Your task to perform on an android device: What's on my calendar tomorrow? Image 0: 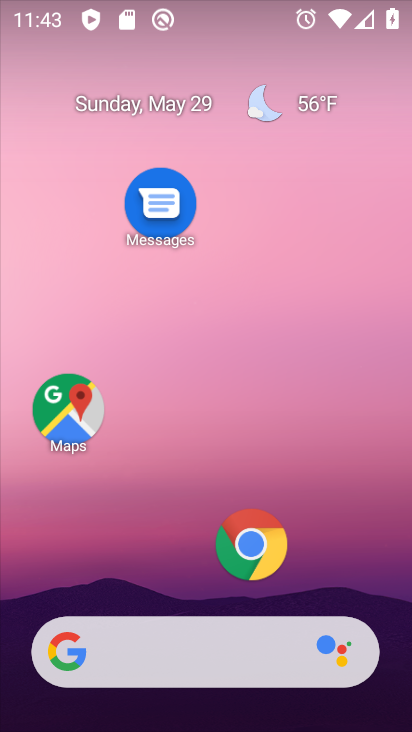
Step 0: drag from (194, 589) to (208, 103)
Your task to perform on an android device: What's on my calendar tomorrow? Image 1: 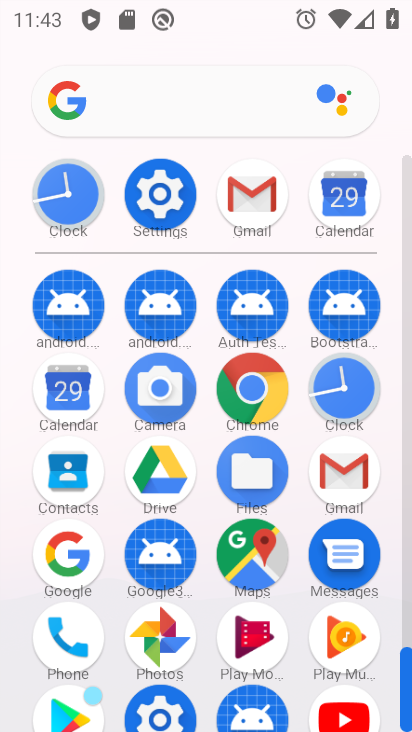
Step 1: click (77, 376)
Your task to perform on an android device: What's on my calendar tomorrow? Image 2: 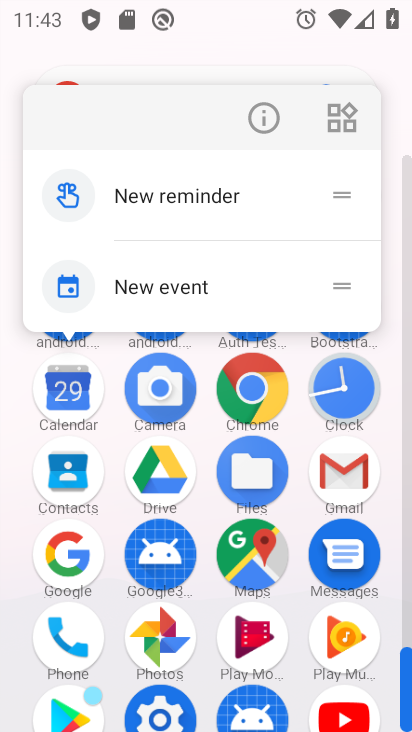
Step 2: click (59, 382)
Your task to perform on an android device: What's on my calendar tomorrow? Image 3: 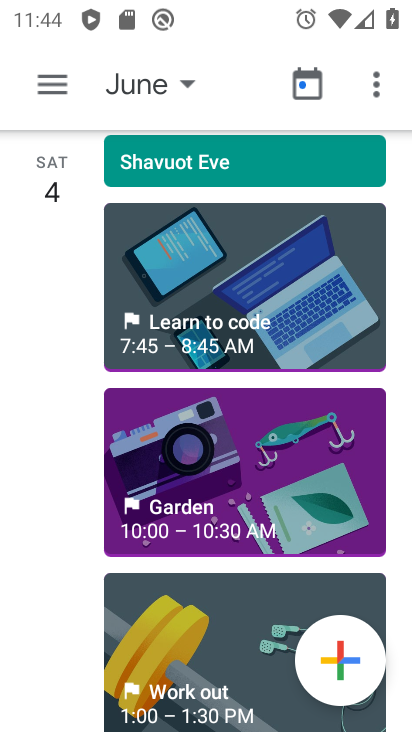
Step 3: click (181, 86)
Your task to perform on an android device: What's on my calendar tomorrow? Image 4: 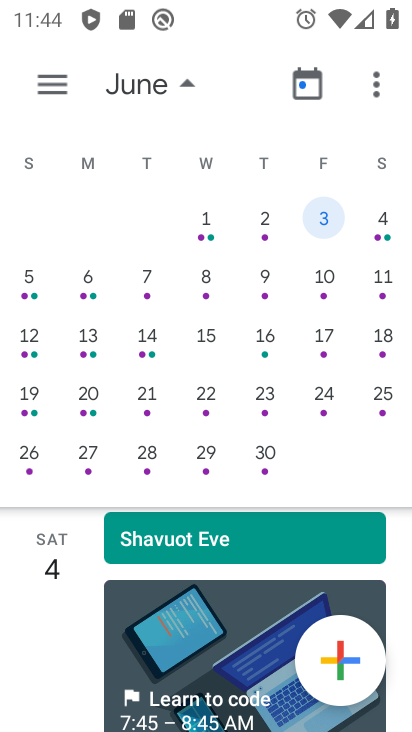
Step 4: drag from (36, 388) to (405, 386)
Your task to perform on an android device: What's on my calendar tomorrow? Image 5: 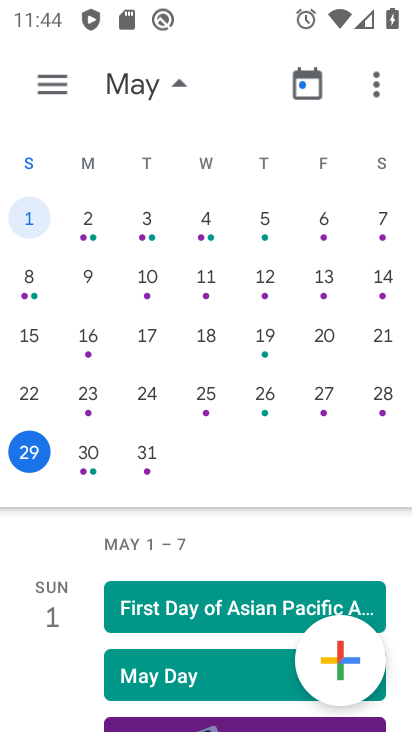
Step 5: click (85, 458)
Your task to perform on an android device: What's on my calendar tomorrow? Image 6: 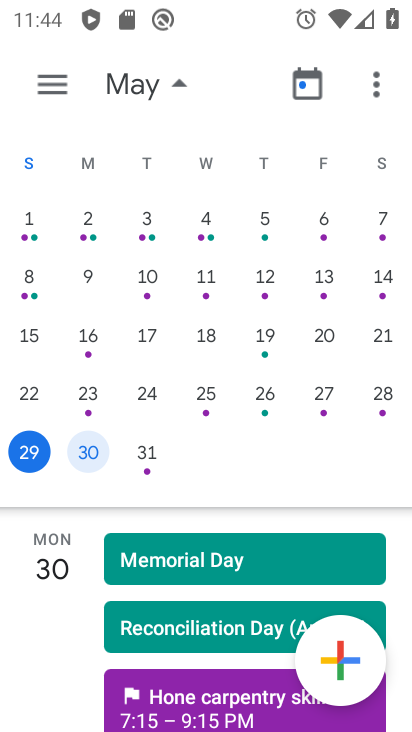
Step 6: click (180, 76)
Your task to perform on an android device: What's on my calendar tomorrow? Image 7: 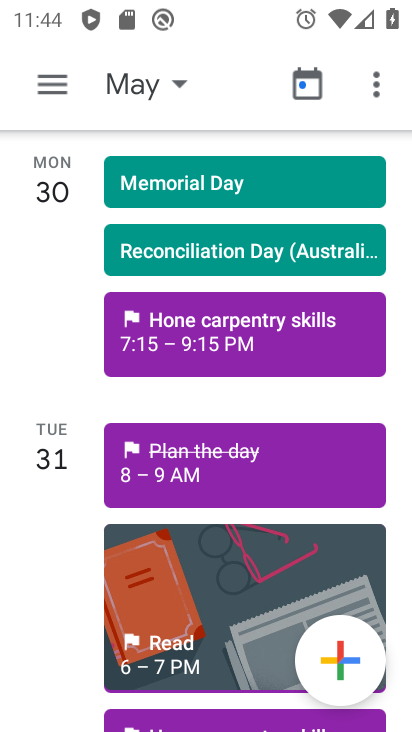
Step 7: click (59, 163)
Your task to perform on an android device: What's on my calendar tomorrow? Image 8: 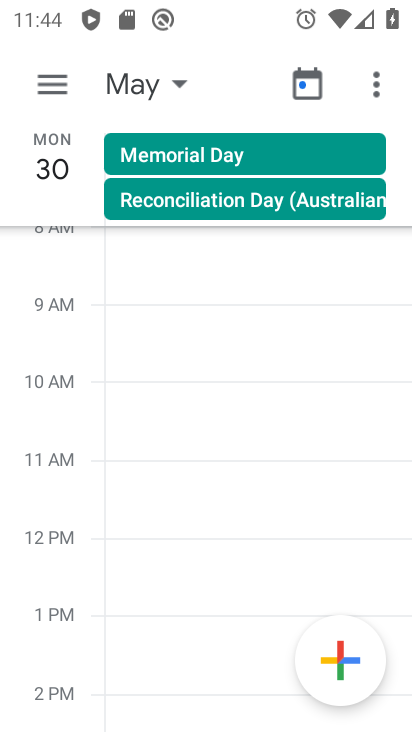
Step 8: task complete